Your task to perform on an android device: See recent photos Image 0: 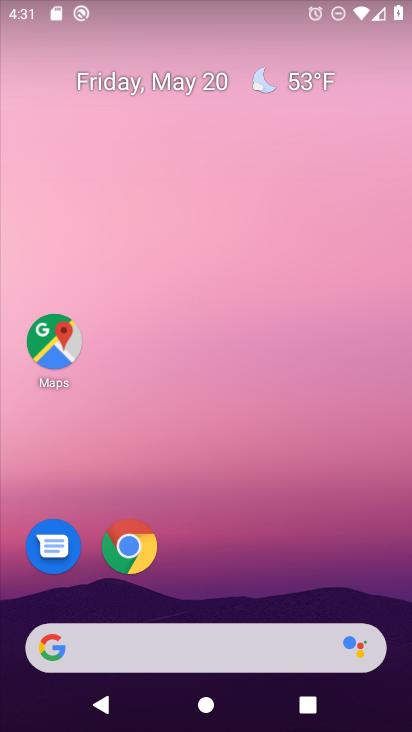
Step 0: drag from (199, 486) to (179, 104)
Your task to perform on an android device: See recent photos Image 1: 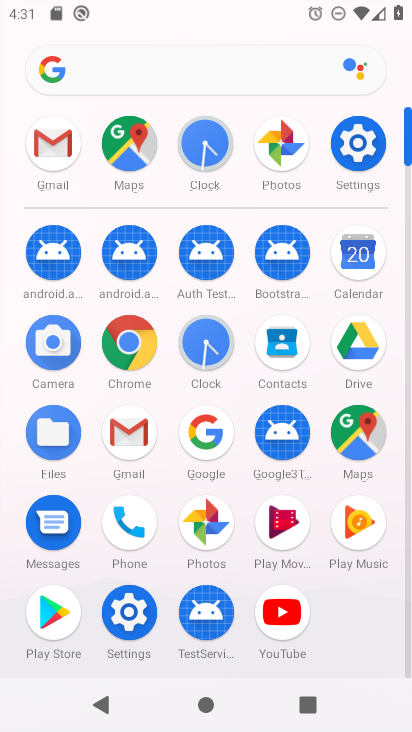
Step 1: click (215, 527)
Your task to perform on an android device: See recent photos Image 2: 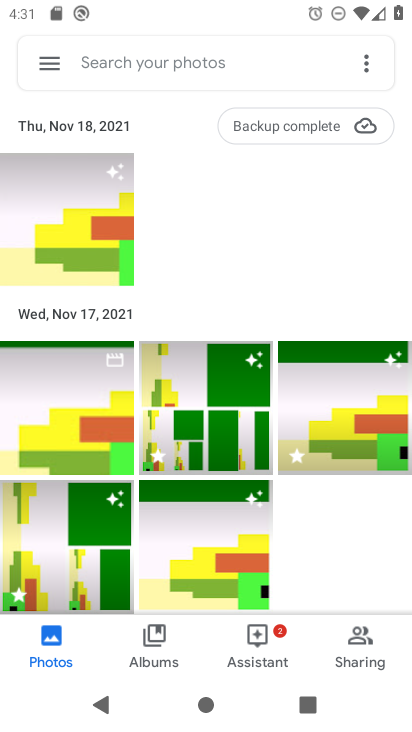
Step 2: task complete